Your task to perform on an android device: turn off notifications settings in the gmail app Image 0: 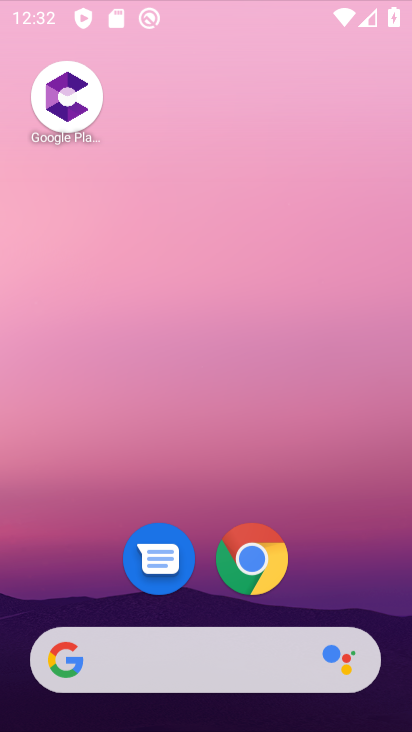
Step 0: click (305, 9)
Your task to perform on an android device: turn off notifications settings in the gmail app Image 1: 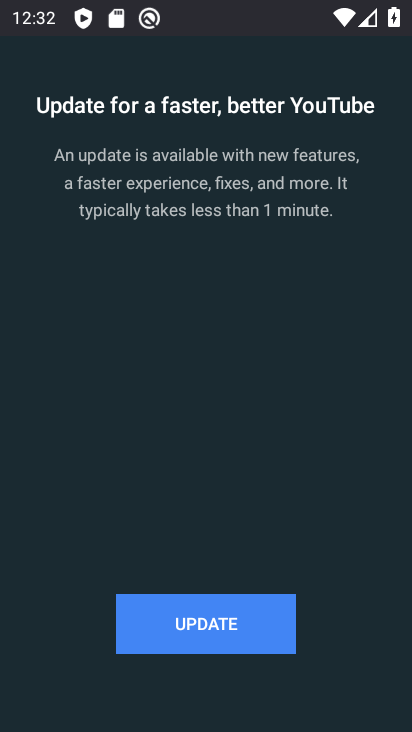
Step 1: press home button
Your task to perform on an android device: turn off notifications settings in the gmail app Image 2: 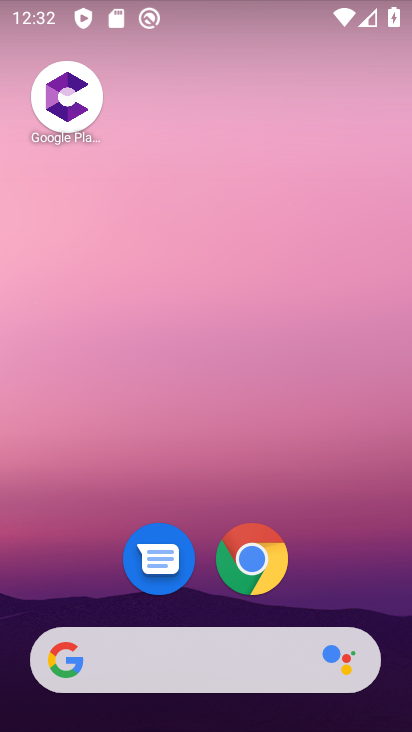
Step 2: drag from (350, 529) to (290, 49)
Your task to perform on an android device: turn off notifications settings in the gmail app Image 3: 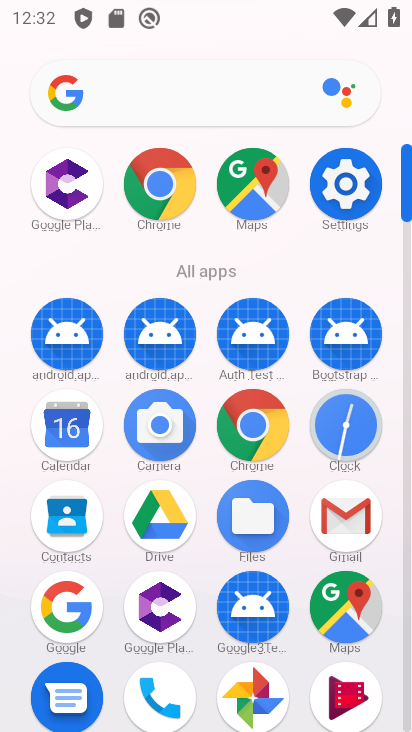
Step 3: click (362, 516)
Your task to perform on an android device: turn off notifications settings in the gmail app Image 4: 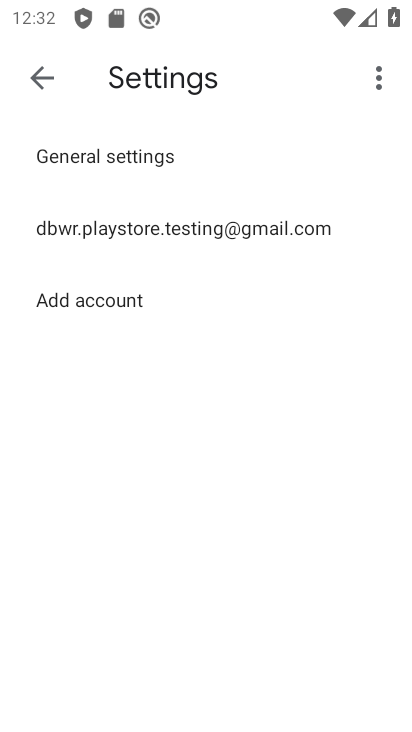
Step 4: click (38, 77)
Your task to perform on an android device: turn off notifications settings in the gmail app Image 5: 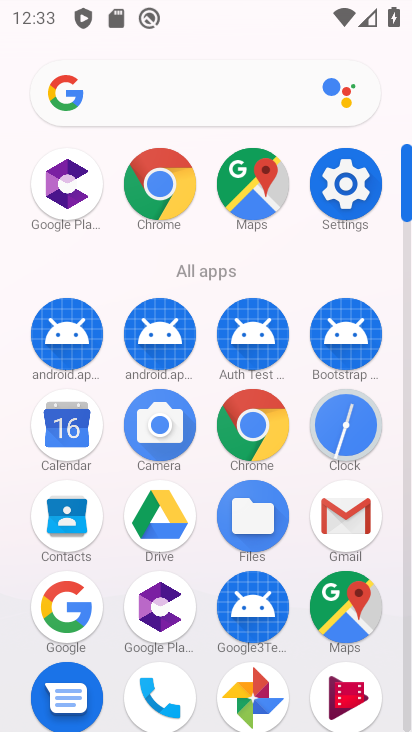
Step 5: click (364, 502)
Your task to perform on an android device: turn off notifications settings in the gmail app Image 6: 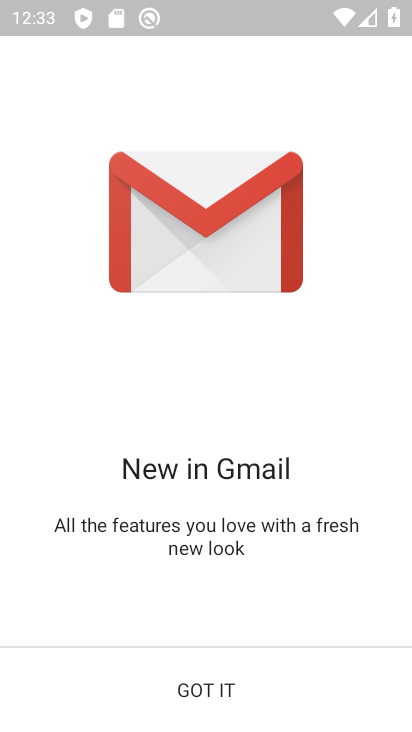
Step 6: click (238, 692)
Your task to perform on an android device: turn off notifications settings in the gmail app Image 7: 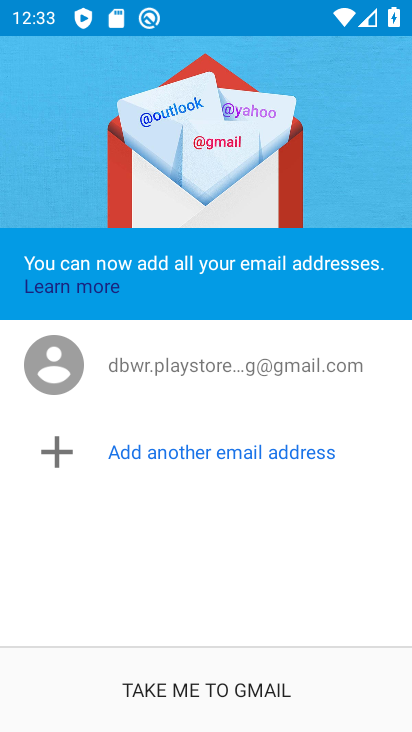
Step 7: click (250, 684)
Your task to perform on an android device: turn off notifications settings in the gmail app Image 8: 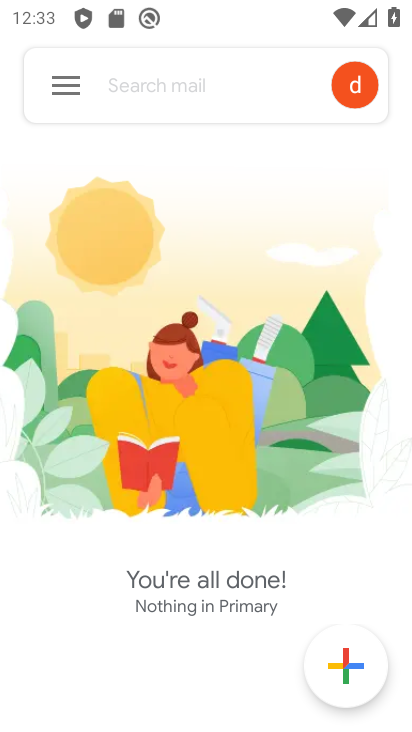
Step 8: click (44, 74)
Your task to perform on an android device: turn off notifications settings in the gmail app Image 9: 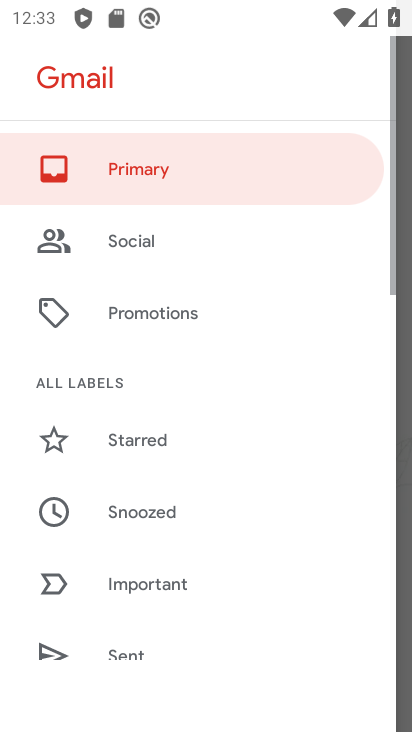
Step 9: drag from (181, 623) to (180, 96)
Your task to perform on an android device: turn off notifications settings in the gmail app Image 10: 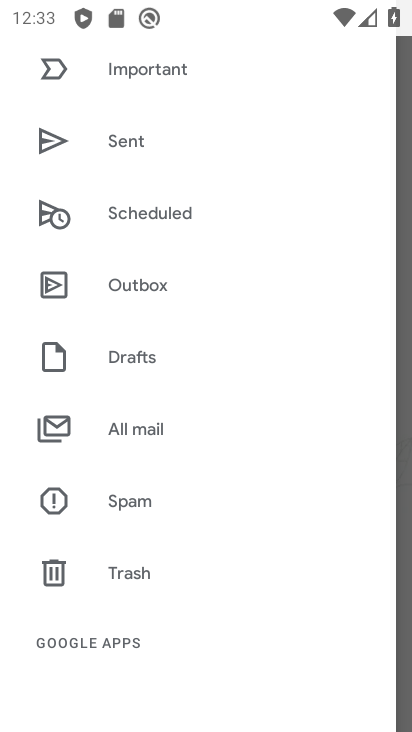
Step 10: drag from (183, 623) to (221, 82)
Your task to perform on an android device: turn off notifications settings in the gmail app Image 11: 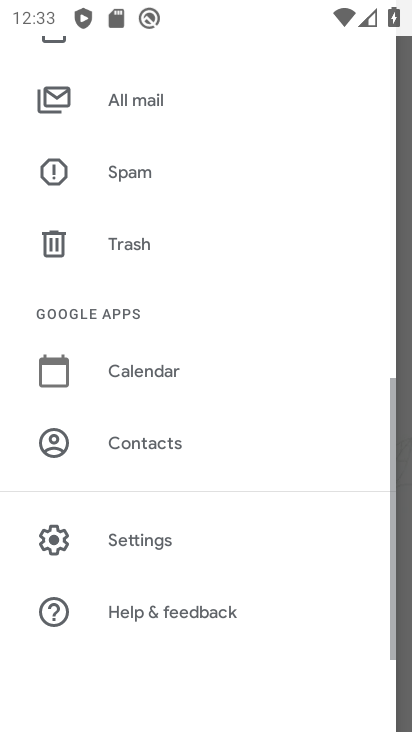
Step 11: click (153, 552)
Your task to perform on an android device: turn off notifications settings in the gmail app Image 12: 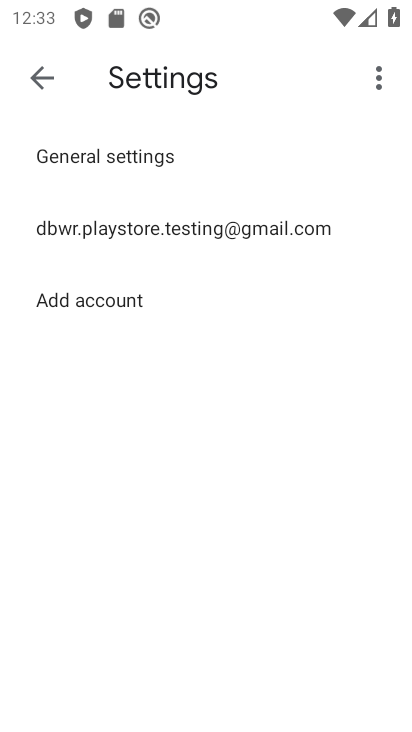
Step 12: click (120, 231)
Your task to perform on an android device: turn off notifications settings in the gmail app Image 13: 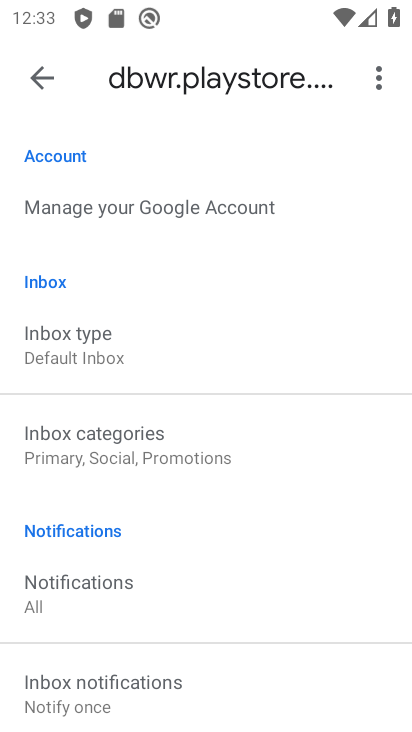
Step 13: click (58, 589)
Your task to perform on an android device: turn off notifications settings in the gmail app Image 14: 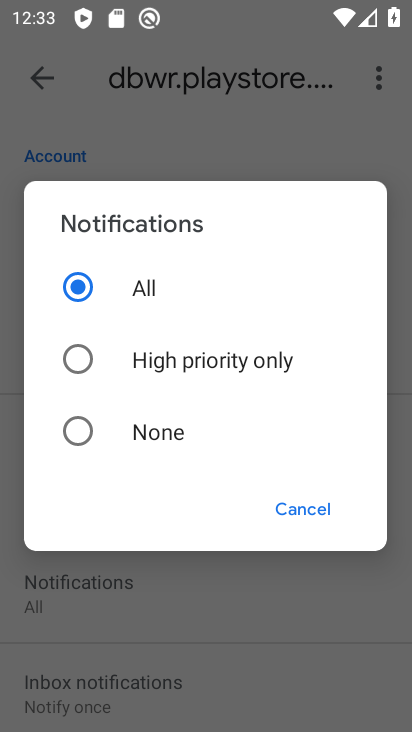
Step 14: click (82, 417)
Your task to perform on an android device: turn off notifications settings in the gmail app Image 15: 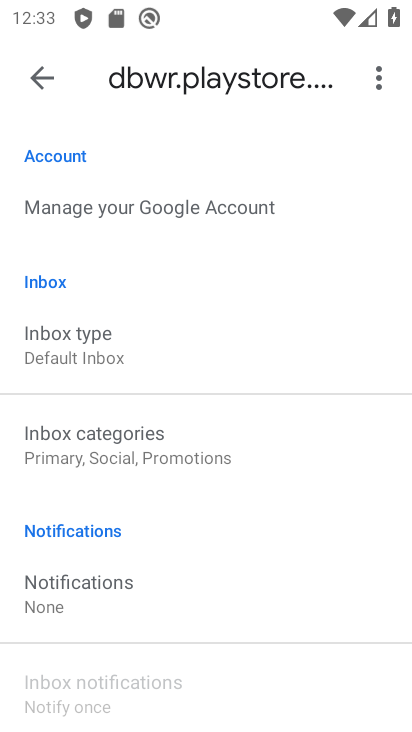
Step 15: task complete